Your task to perform on an android device: Open battery settings Image 0: 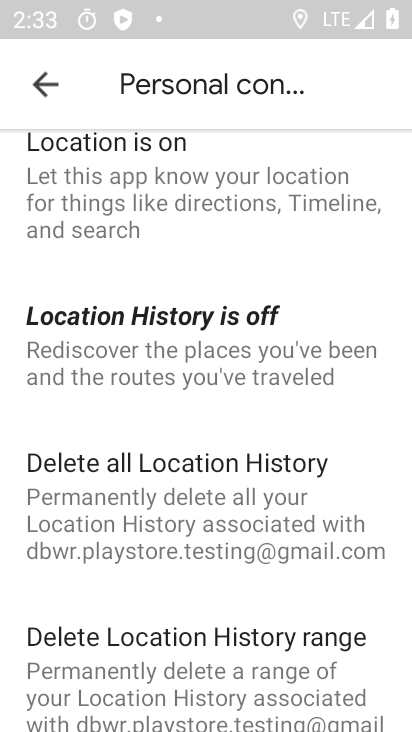
Step 0: press home button
Your task to perform on an android device: Open battery settings Image 1: 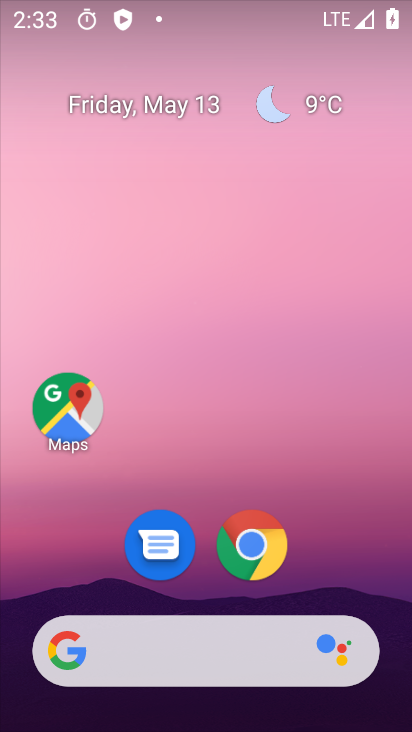
Step 1: drag from (312, 562) to (350, 88)
Your task to perform on an android device: Open battery settings Image 2: 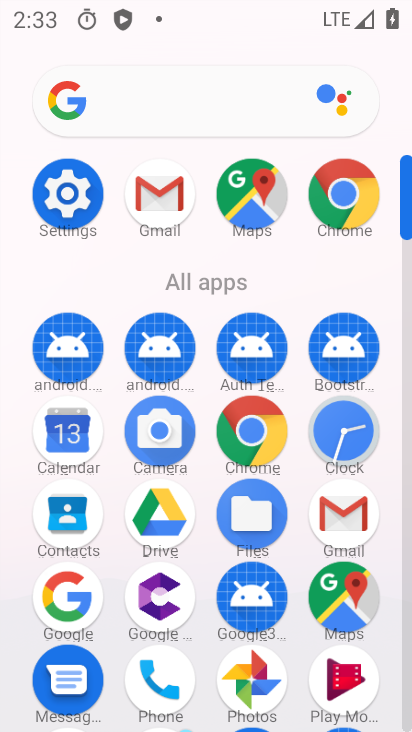
Step 2: click (57, 198)
Your task to perform on an android device: Open battery settings Image 3: 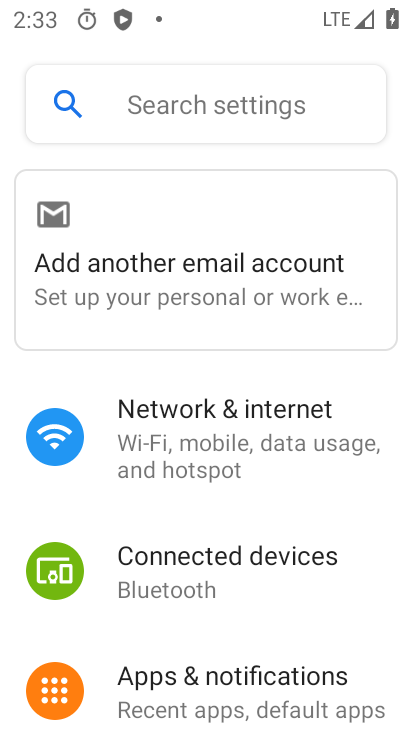
Step 3: drag from (265, 629) to (275, 204)
Your task to perform on an android device: Open battery settings Image 4: 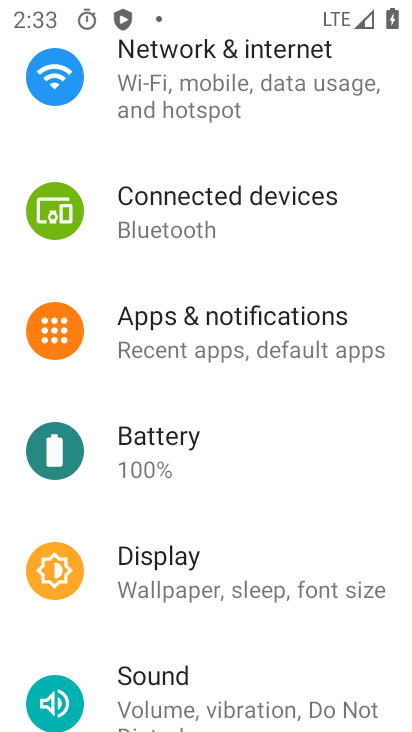
Step 4: click (145, 452)
Your task to perform on an android device: Open battery settings Image 5: 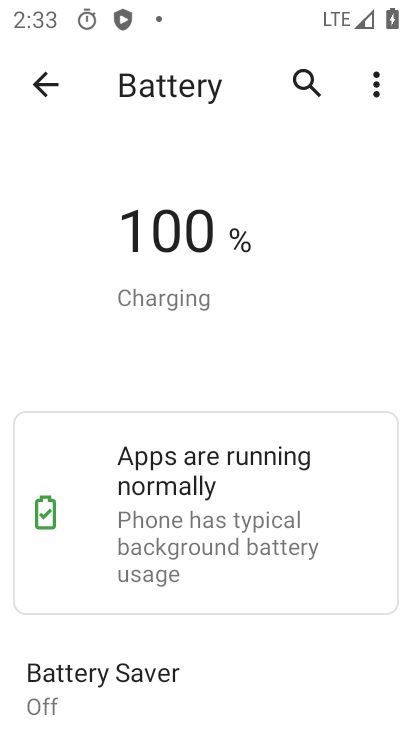
Step 5: task complete